Your task to perform on an android device: toggle translation in the chrome app Image 0: 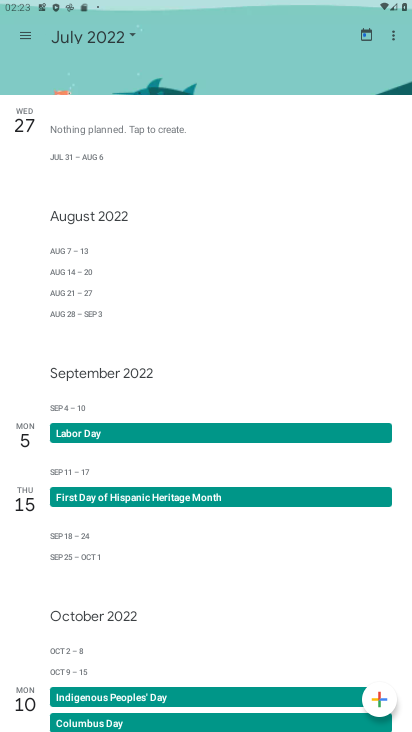
Step 0: press home button
Your task to perform on an android device: toggle translation in the chrome app Image 1: 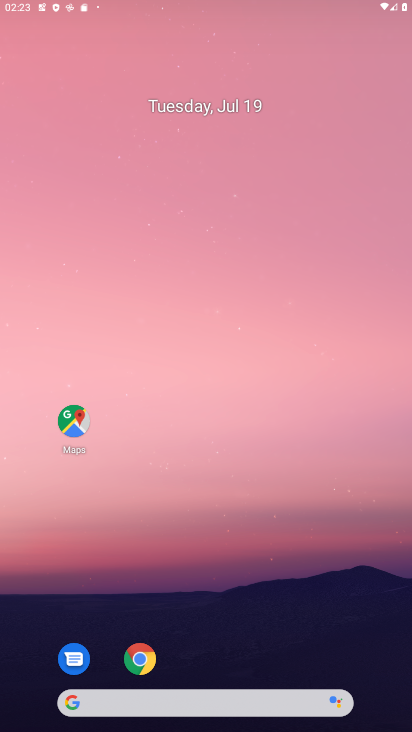
Step 1: drag from (243, 650) to (262, 52)
Your task to perform on an android device: toggle translation in the chrome app Image 2: 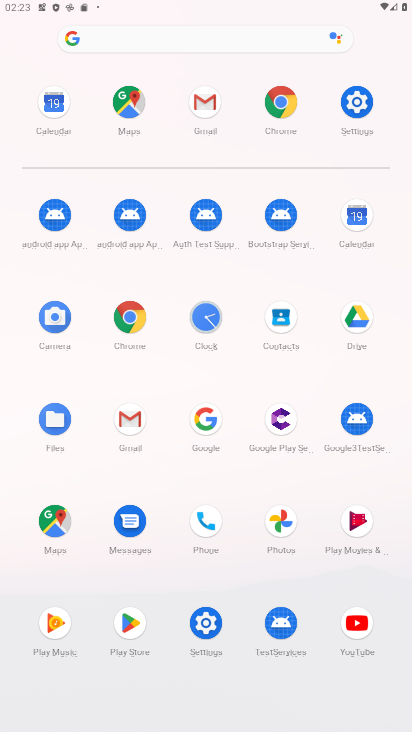
Step 2: click (282, 93)
Your task to perform on an android device: toggle translation in the chrome app Image 3: 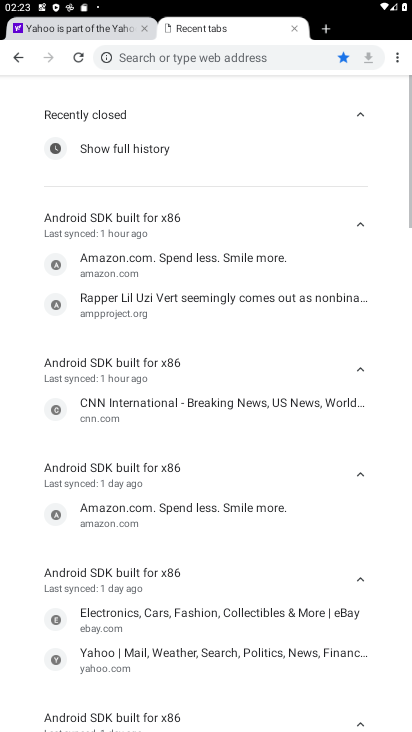
Step 3: drag from (402, 51) to (279, 295)
Your task to perform on an android device: toggle translation in the chrome app Image 4: 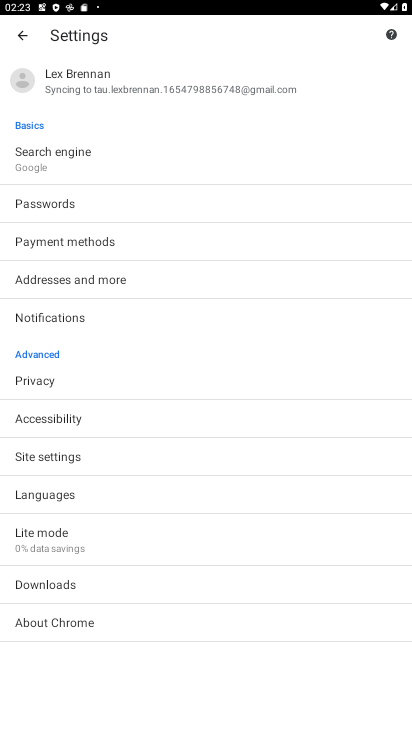
Step 4: click (74, 494)
Your task to perform on an android device: toggle translation in the chrome app Image 5: 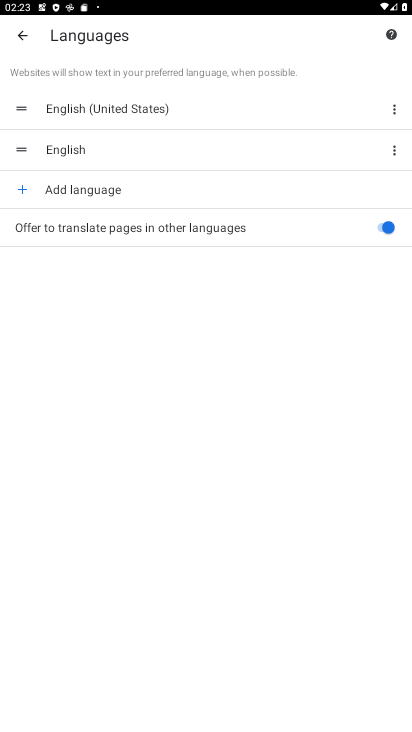
Step 5: click (329, 234)
Your task to perform on an android device: toggle translation in the chrome app Image 6: 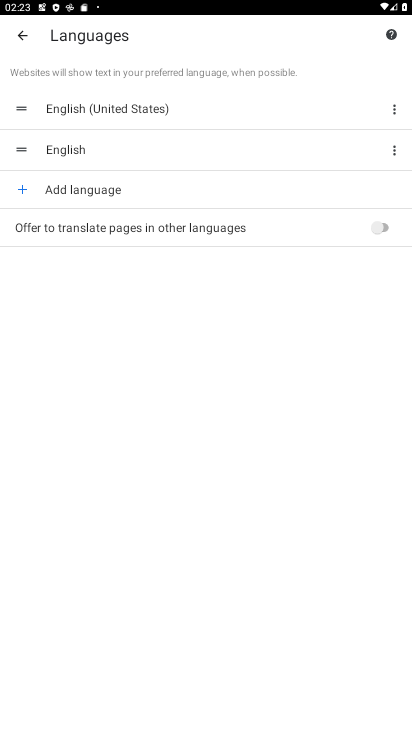
Step 6: task complete